Your task to perform on an android device: Open Google Chrome and open the bookmarks view Image 0: 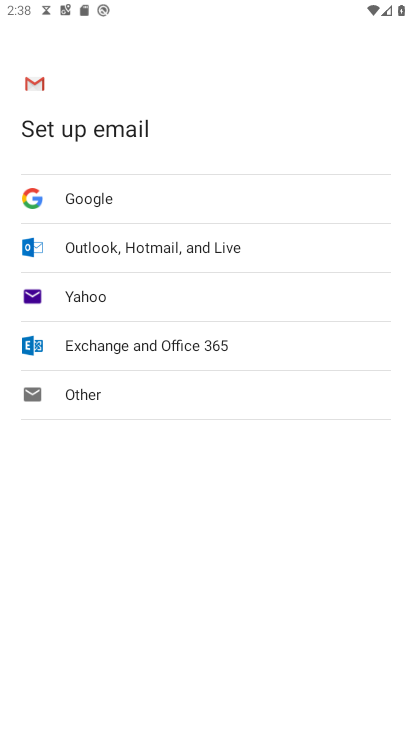
Step 0: press home button
Your task to perform on an android device: Open Google Chrome and open the bookmarks view Image 1: 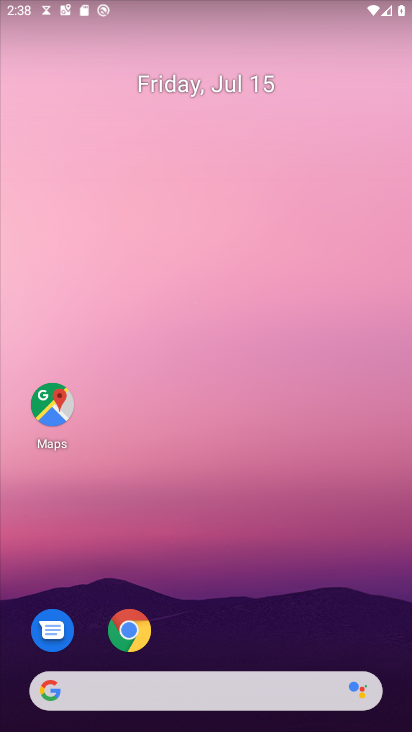
Step 1: drag from (258, 557) to (228, 96)
Your task to perform on an android device: Open Google Chrome and open the bookmarks view Image 2: 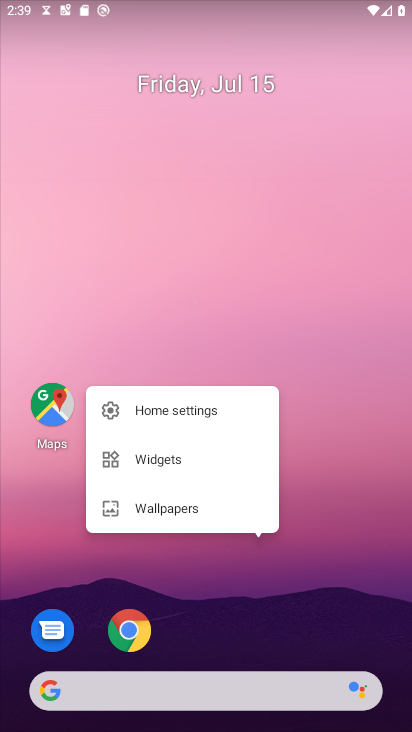
Step 2: click (320, 572)
Your task to perform on an android device: Open Google Chrome and open the bookmarks view Image 3: 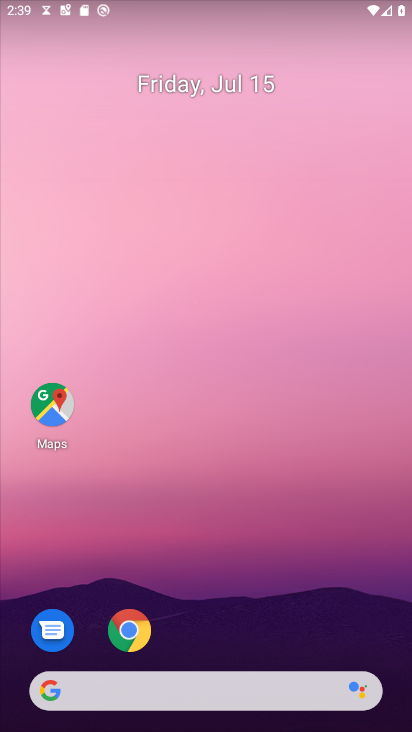
Step 3: drag from (359, 480) to (349, 28)
Your task to perform on an android device: Open Google Chrome and open the bookmarks view Image 4: 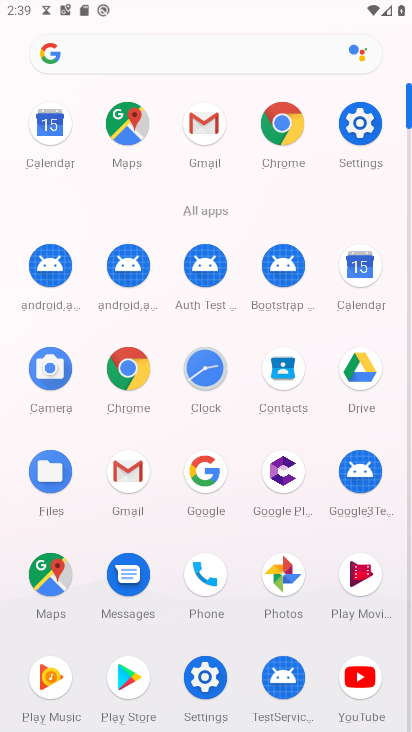
Step 4: click (274, 114)
Your task to perform on an android device: Open Google Chrome and open the bookmarks view Image 5: 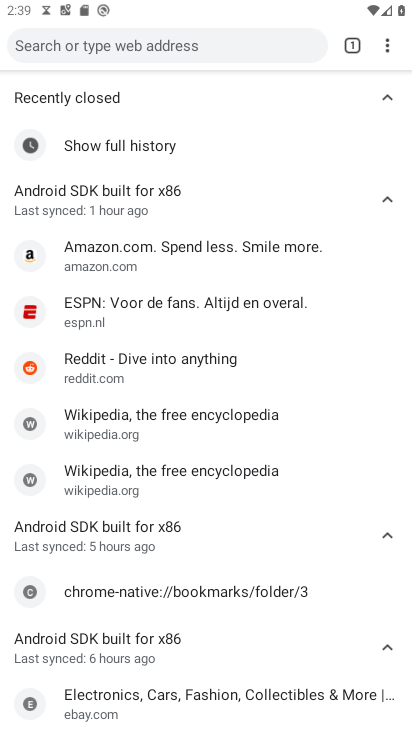
Step 5: task complete